Your task to perform on an android device: Open the web browser Image 0: 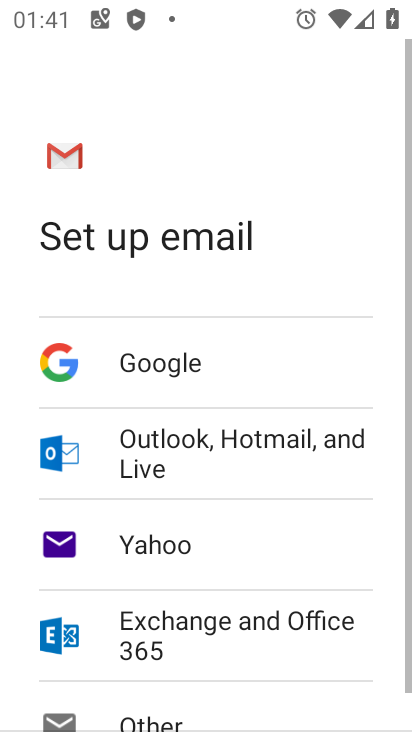
Step 0: press home button
Your task to perform on an android device: Open the web browser Image 1: 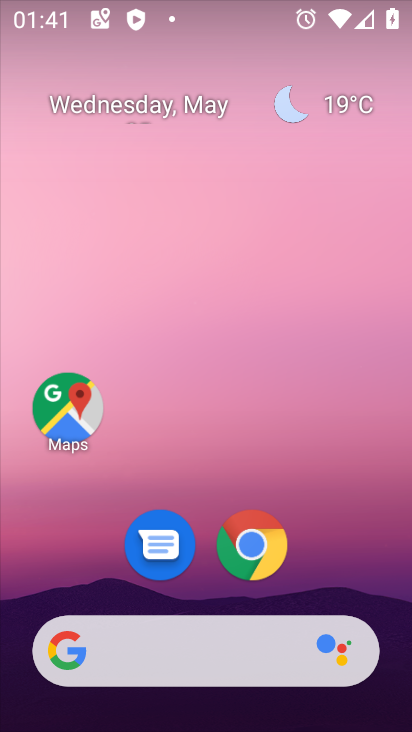
Step 1: click (242, 546)
Your task to perform on an android device: Open the web browser Image 2: 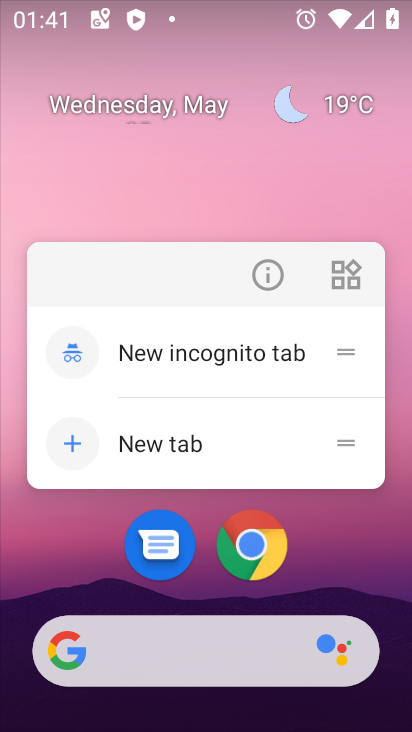
Step 2: click (248, 548)
Your task to perform on an android device: Open the web browser Image 3: 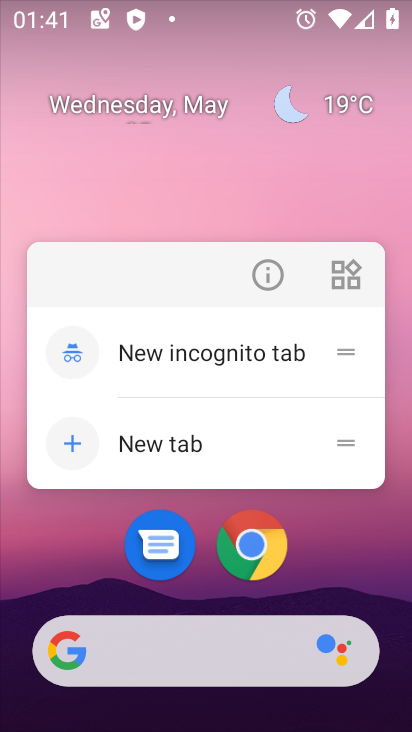
Step 3: click (249, 545)
Your task to perform on an android device: Open the web browser Image 4: 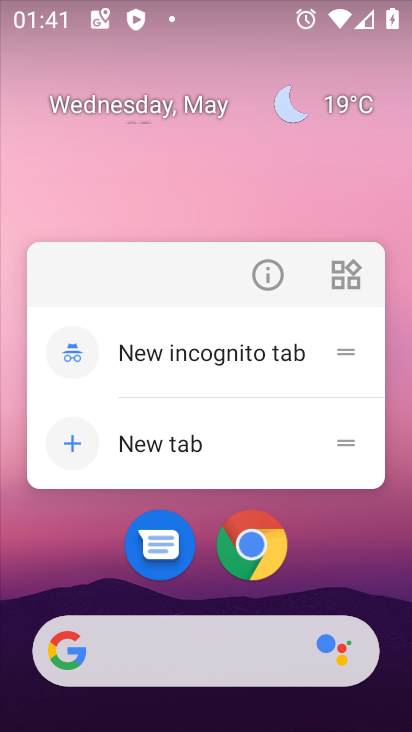
Step 4: click (264, 549)
Your task to perform on an android device: Open the web browser Image 5: 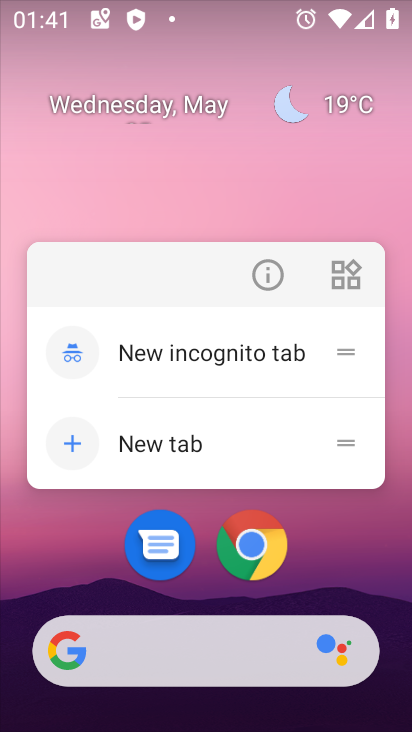
Step 5: click (350, 533)
Your task to perform on an android device: Open the web browser Image 6: 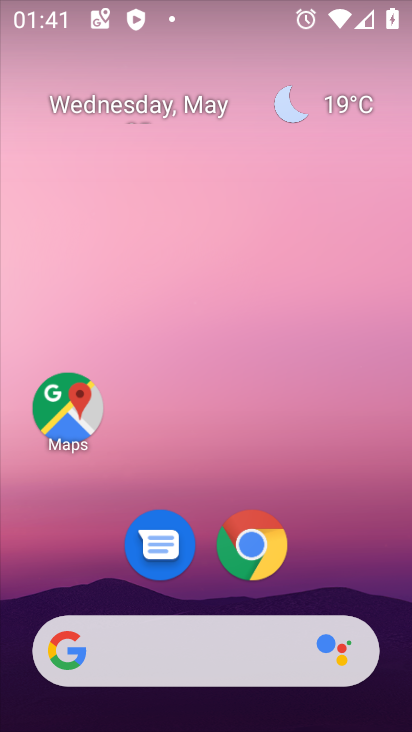
Step 6: drag from (348, 526) to (411, 3)
Your task to perform on an android device: Open the web browser Image 7: 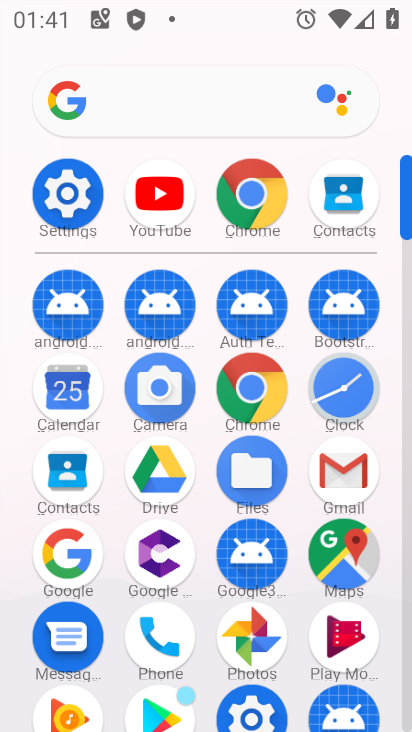
Step 7: click (263, 388)
Your task to perform on an android device: Open the web browser Image 8: 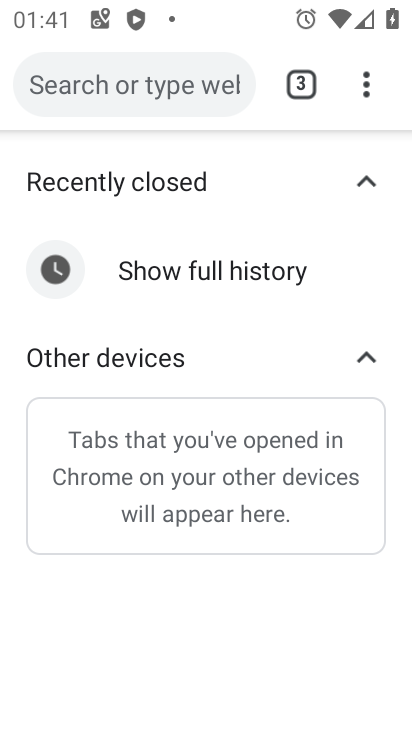
Step 8: task complete